Your task to perform on an android device: Open the map Image 0: 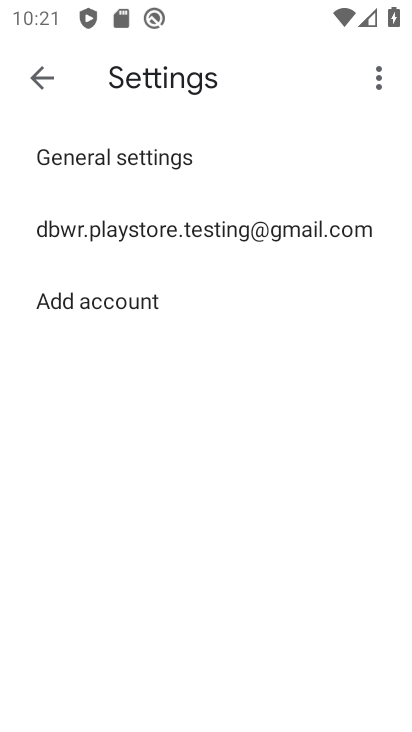
Step 0: press home button
Your task to perform on an android device: Open the map Image 1: 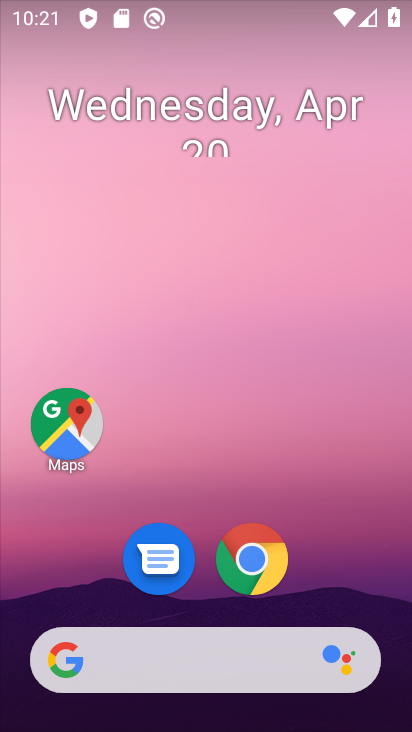
Step 1: click (64, 419)
Your task to perform on an android device: Open the map Image 2: 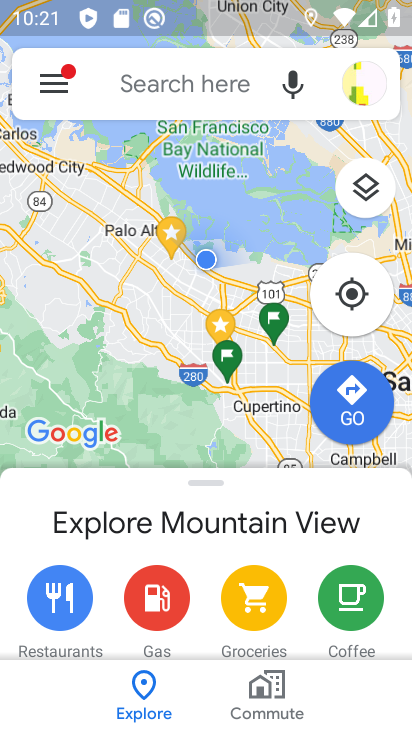
Step 2: task complete